Your task to perform on an android device: Find coffee shops on Maps Image 0: 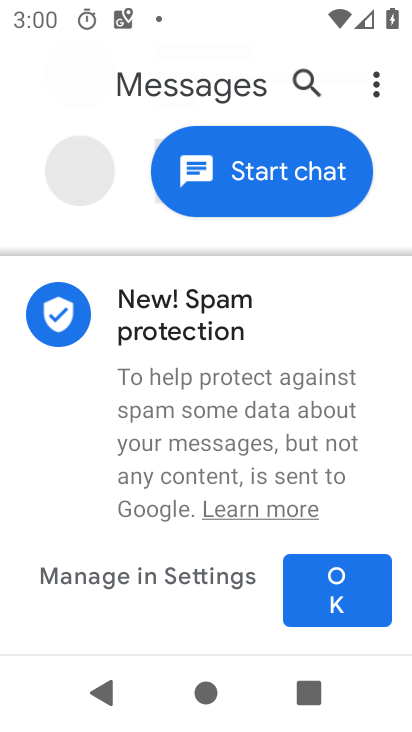
Step 0: press home button
Your task to perform on an android device: Find coffee shops on Maps Image 1: 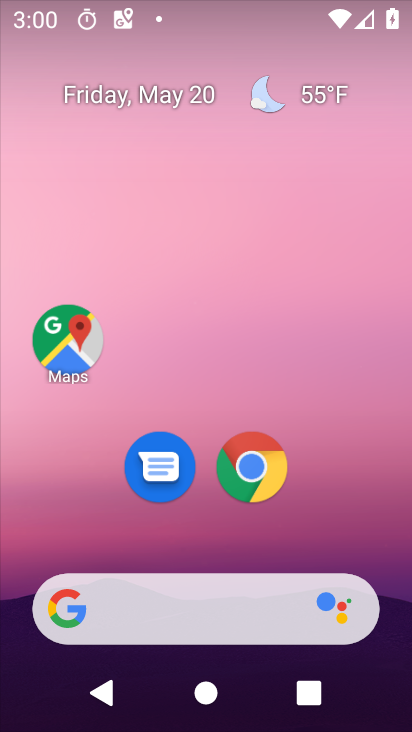
Step 1: click (62, 348)
Your task to perform on an android device: Find coffee shops on Maps Image 2: 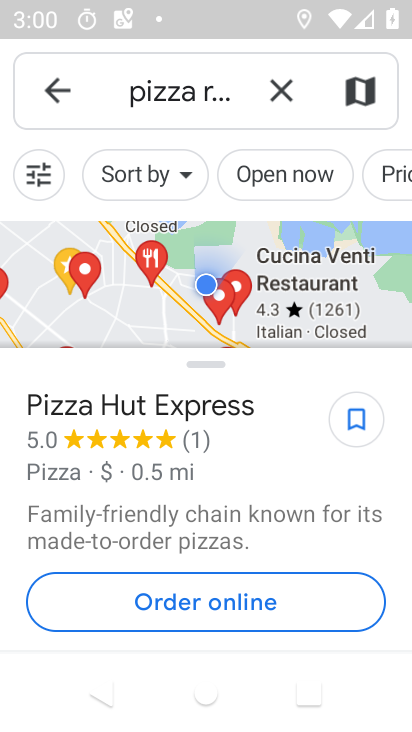
Step 2: click (284, 87)
Your task to perform on an android device: Find coffee shops on Maps Image 3: 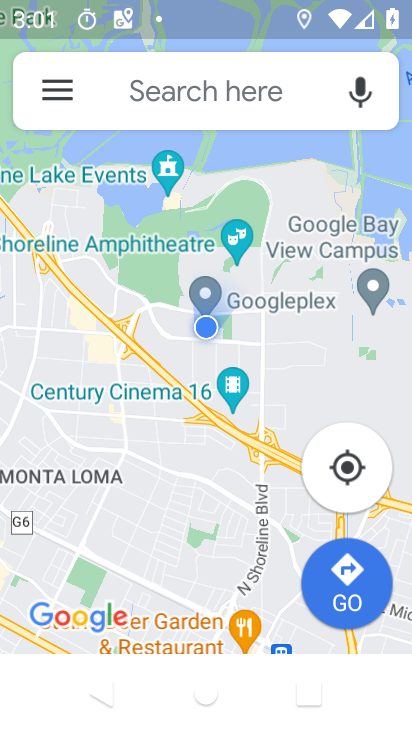
Step 3: click (188, 96)
Your task to perform on an android device: Find coffee shops on Maps Image 4: 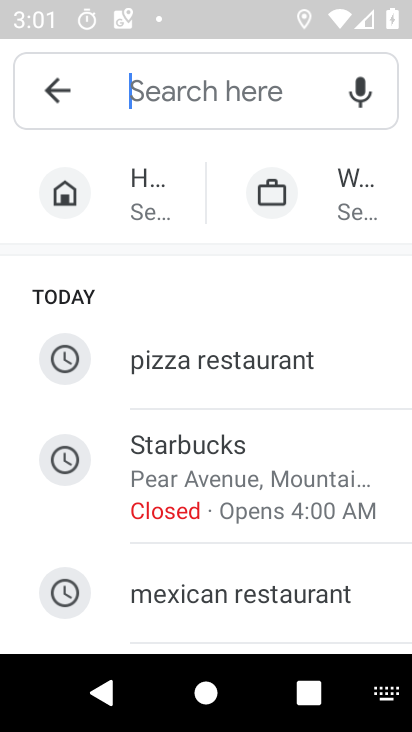
Step 4: type "coffee shops"
Your task to perform on an android device: Find coffee shops on Maps Image 5: 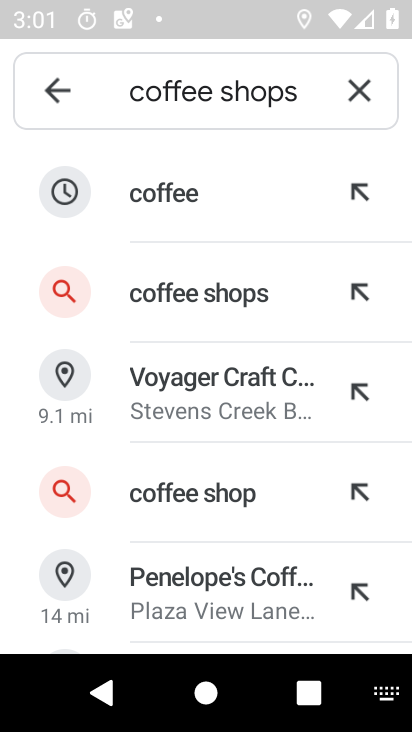
Step 5: click (176, 280)
Your task to perform on an android device: Find coffee shops on Maps Image 6: 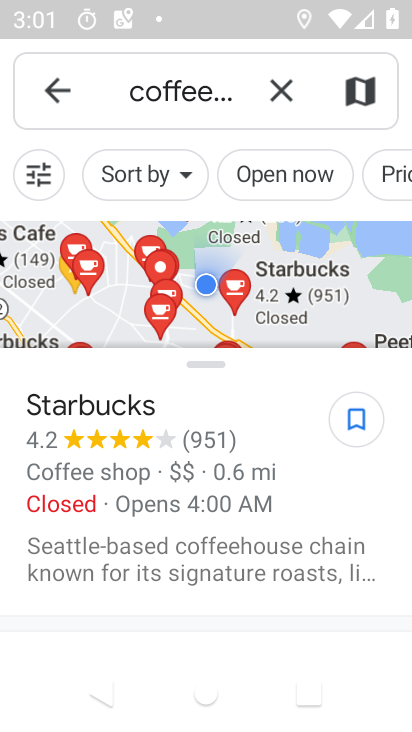
Step 6: task complete